Your task to perform on an android device: turn off javascript in the chrome app Image 0: 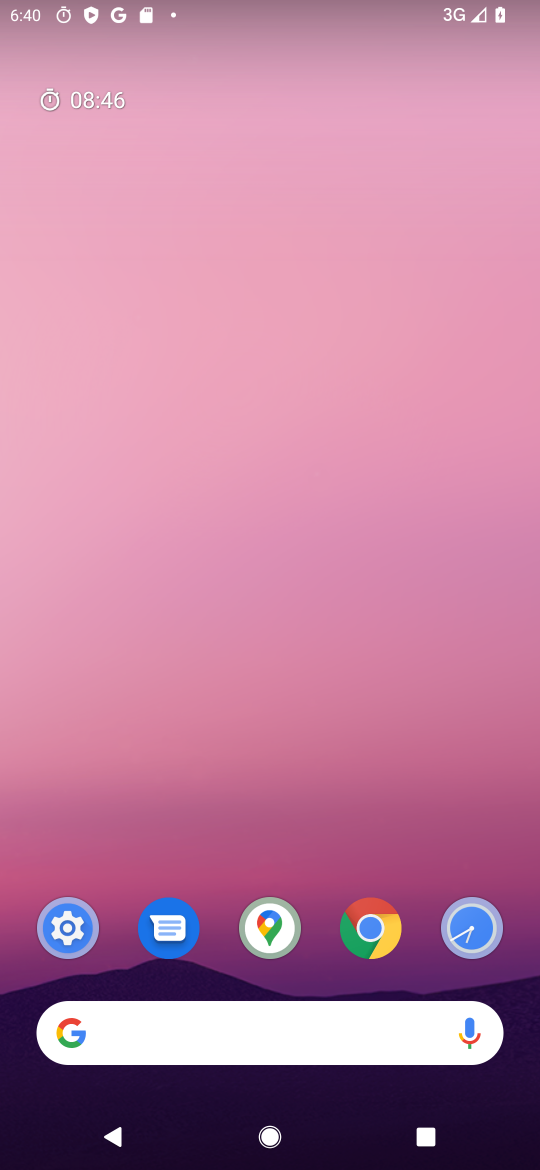
Step 0: press home button
Your task to perform on an android device: turn off javascript in the chrome app Image 1: 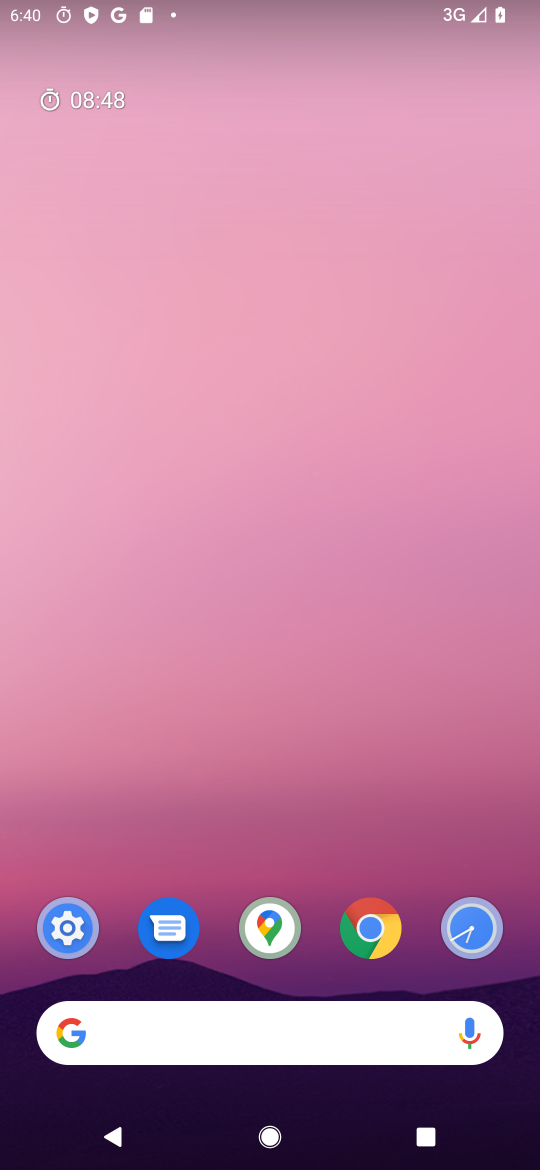
Step 1: drag from (214, 850) to (275, 210)
Your task to perform on an android device: turn off javascript in the chrome app Image 2: 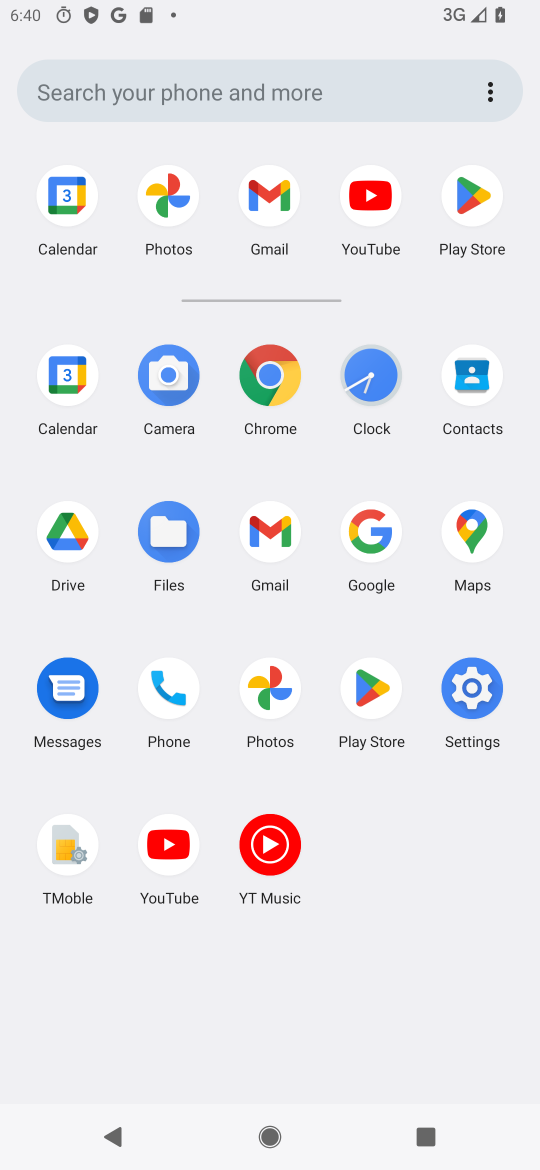
Step 2: click (272, 381)
Your task to perform on an android device: turn off javascript in the chrome app Image 3: 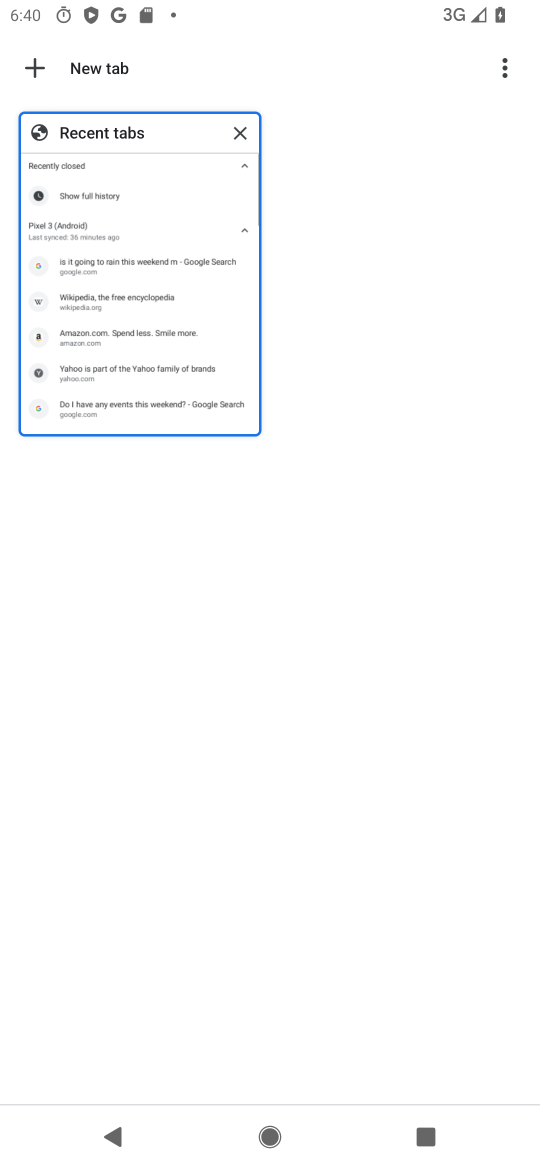
Step 3: press back button
Your task to perform on an android device: turn off javascript in the chrome app Image 4: 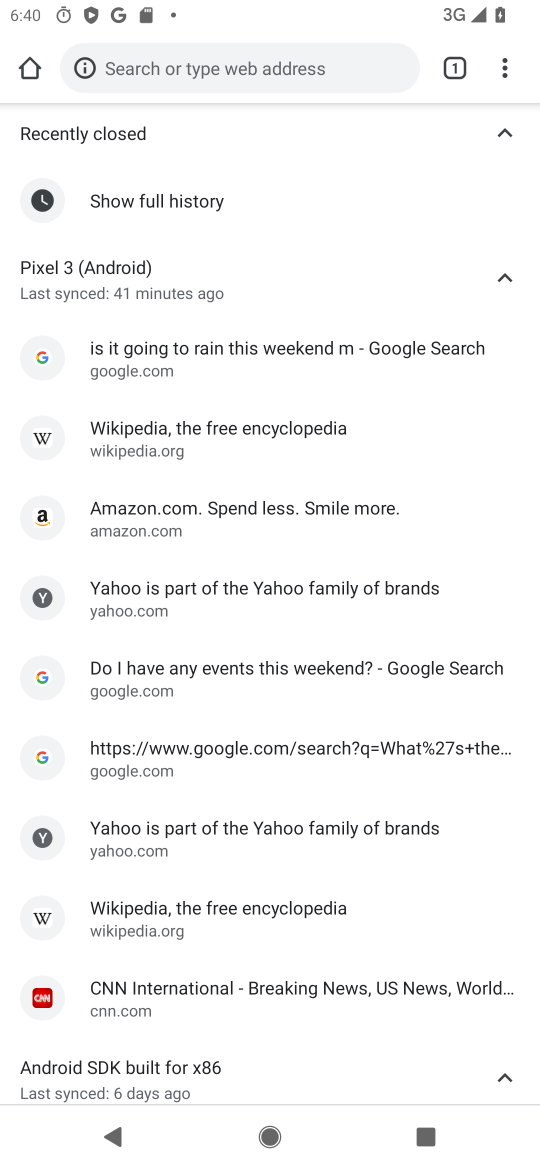
Step 4: click (507, 71)
Your task to perform on an android device: turn off javascript in the chrome app Image 5: 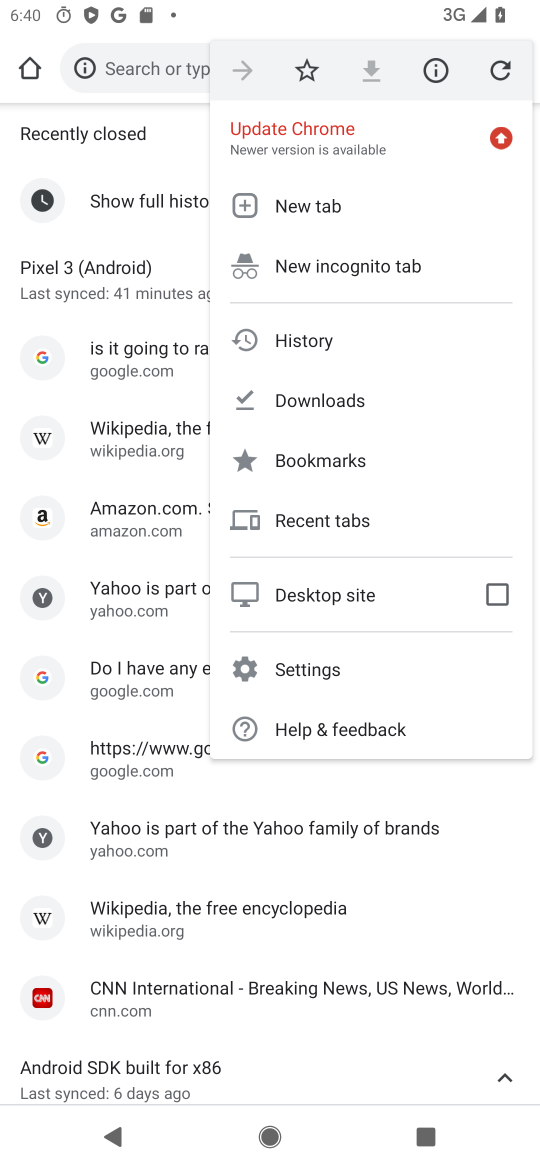
Step 5: click (364, 671)
Your task to perform on an android device: turn off javascript in the chrome app Image 6: 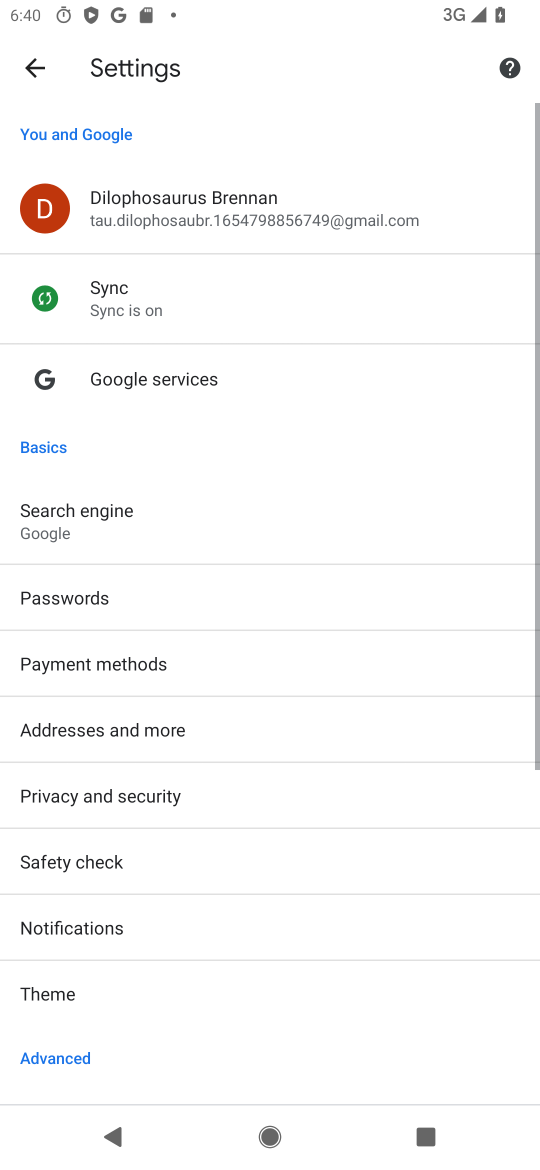
Step 6: drag from (365, 795) to (393, 615)
Your task to perform on an android device: turn off javascript in the chrome app Image 7: 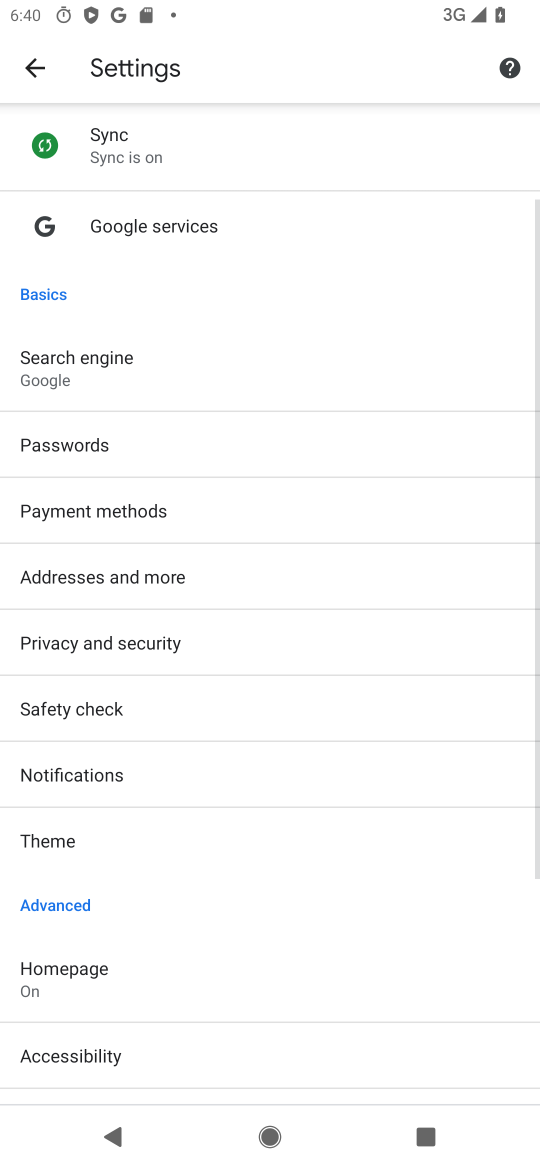
Step 7: drag from (367, 856) to (369, 694)
Your task to perform on an android device: turn off javascript in the chrome app Image 8: 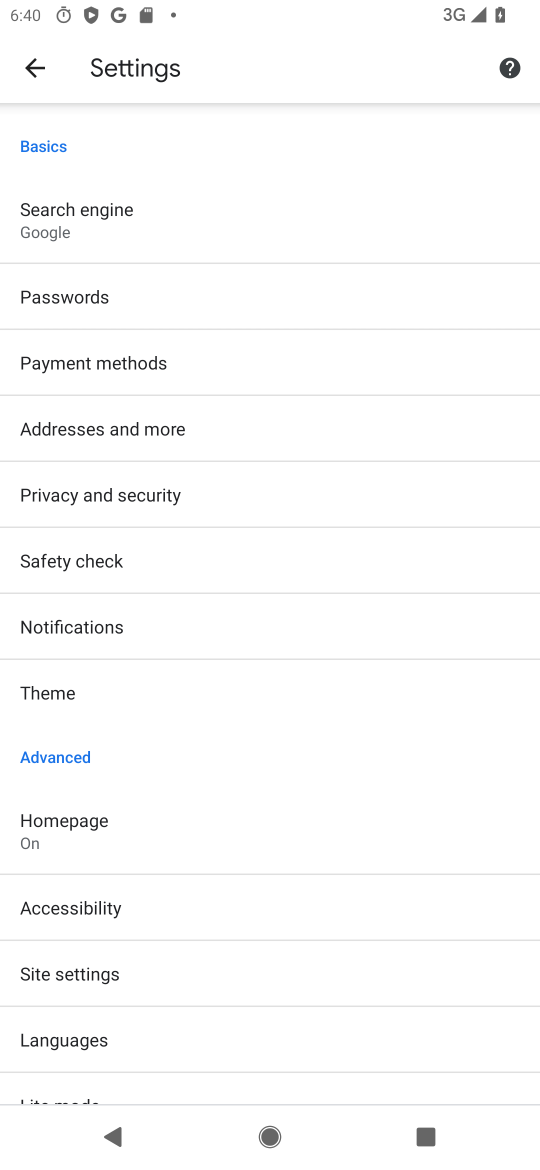
Step 8: drag from (376, 919) to (406, 733)
Your task to perform on an android device: turn off javascript in the chrome app Image 9: 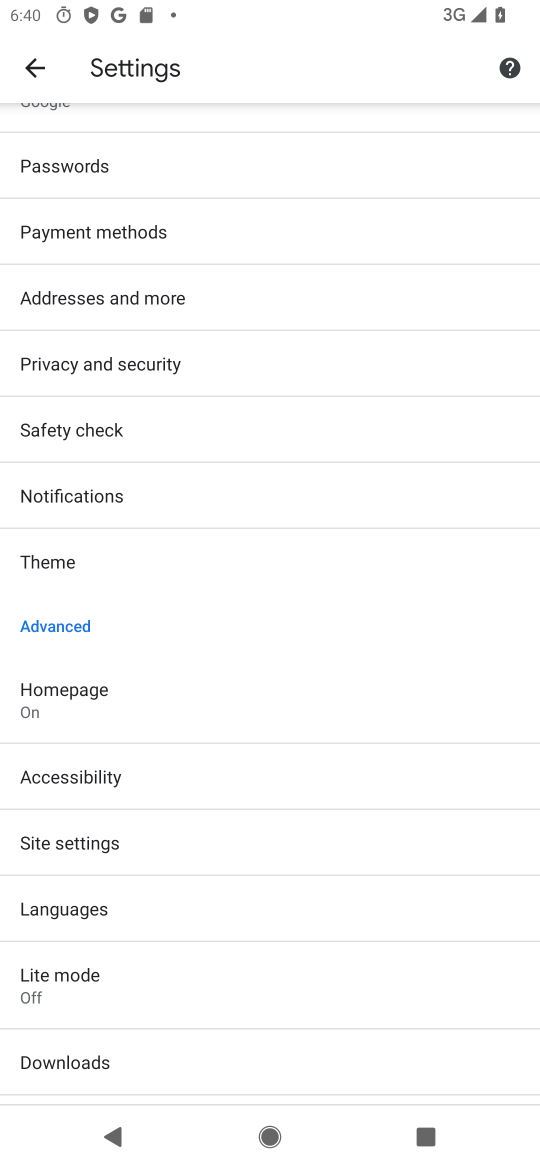
Step 9: drag from (404, 938) to (439, 702)
Your task to perform on an android device: turn off javascript in the chrome app Image 10: 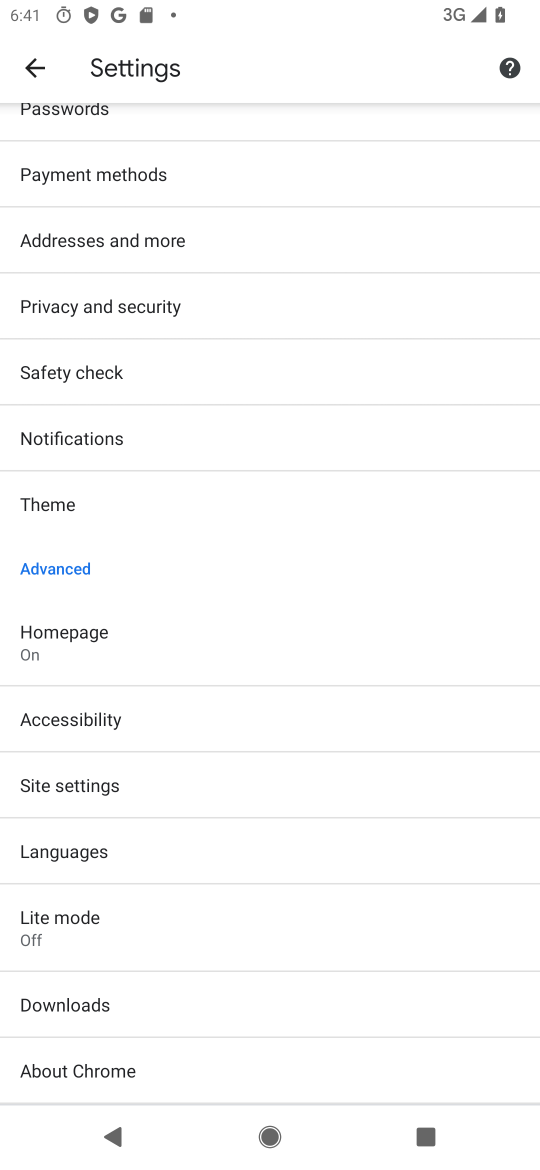
Step 10: drag from (386, 535) to (380, 728)
Your task to perform on an android device: turn off javascript in the chrome app Image 11: 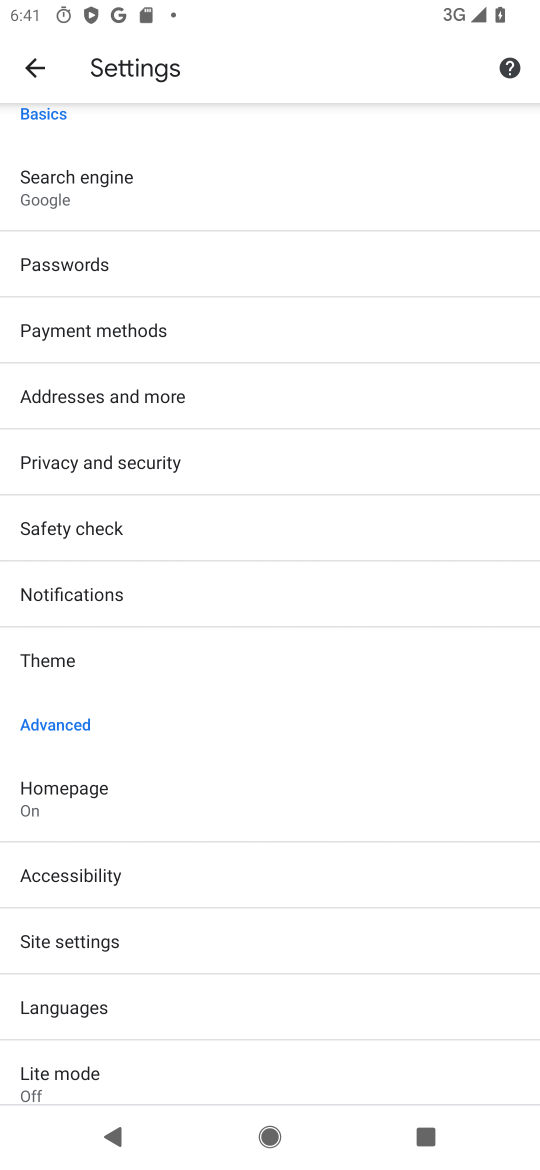
Step 11: drag from (401, 396) to (404, 671)
Your task to perform on an android device: turn off javascript in the chrome app Image 12: 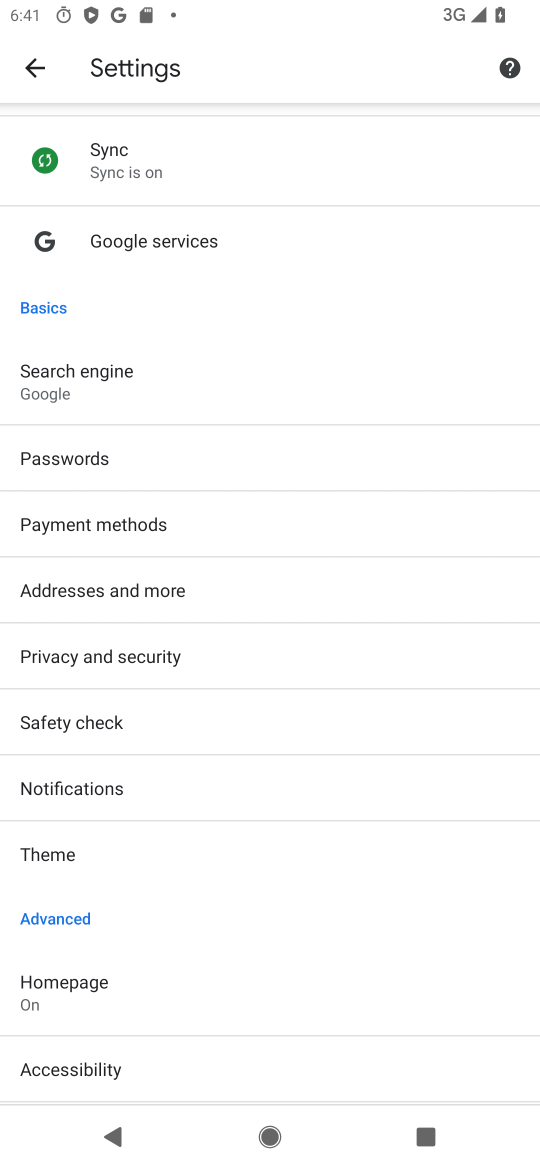
Step 12: drag from (368, 431) to (386, 738)
Your task to perform on an android device: turn off javascript in the chrome app Image 13: 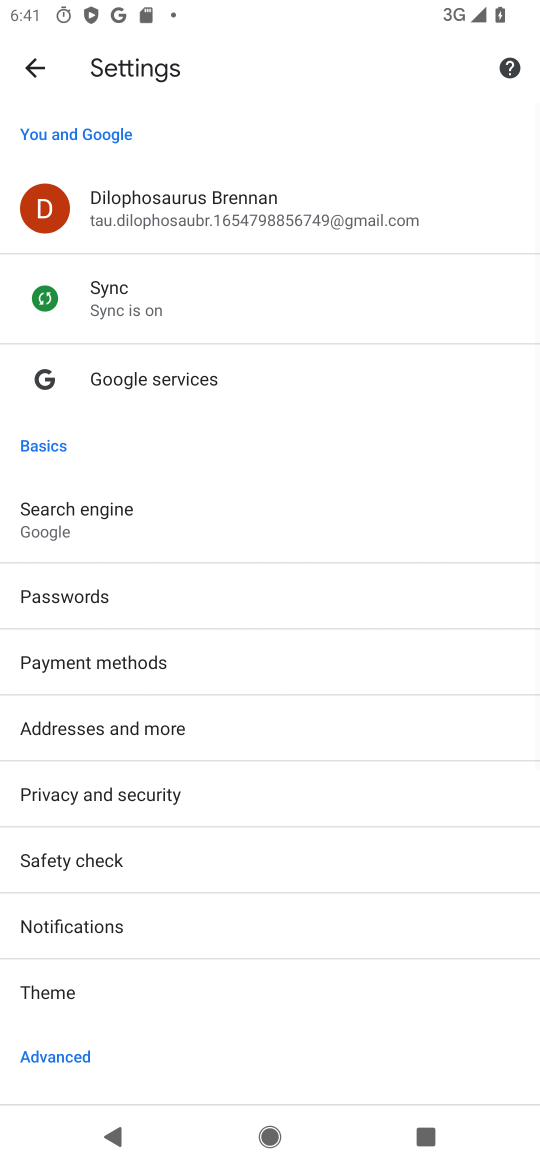
Step 13: drag from (352, 844) to (363, 641)
Your task to perform on an android device: turn off javascript in the chrome app Image 14: 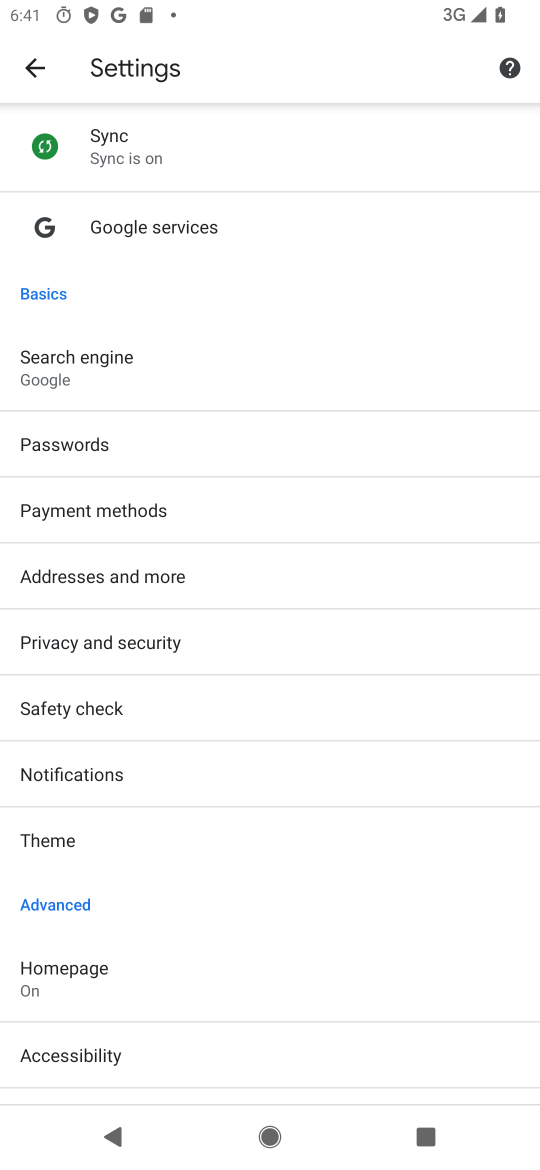
Step 14: drag from (317, 875) to (326, 650)
Your task to perform on an android device: turn off javascript in the chrome app Image 15: 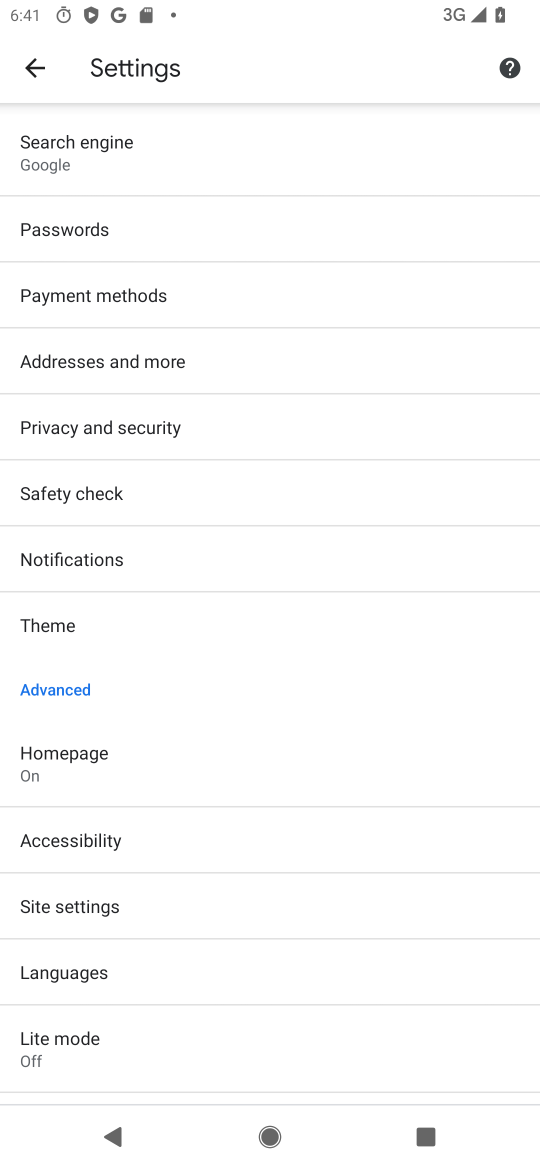
Step 15: click (309, 903)
Your task to perform on an android device: turn off javascript in the chrome app Image 16: 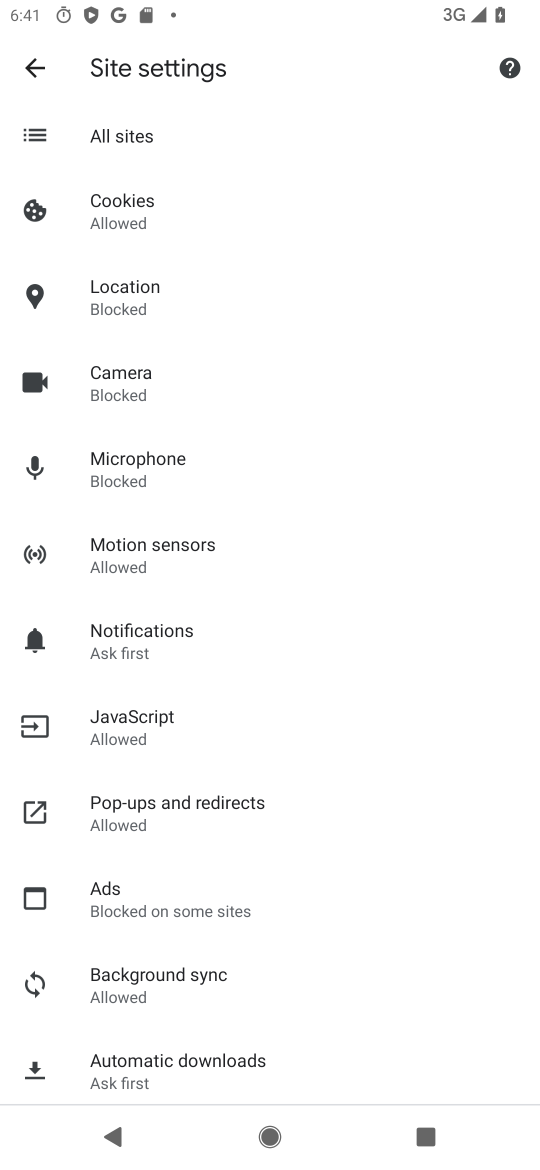
Step 16: drag from (356, 910) to (360, 713)
Your task to perform on an android device: turn off javascript in the chrome app Image 17: 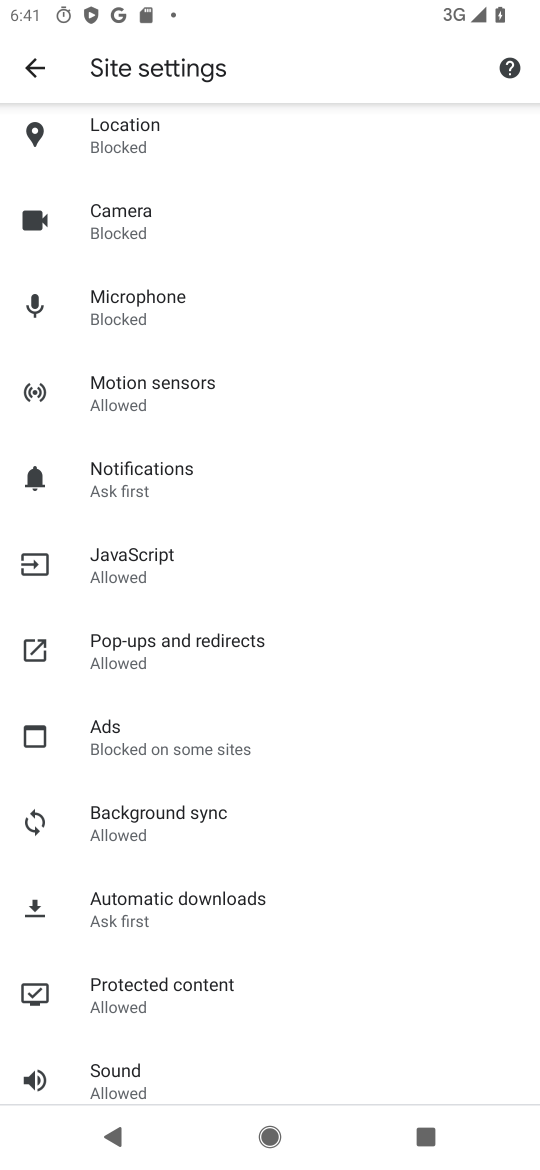
Step 17: drag from (360, 925) to (360, 721)
Your task to perform on an android device: turn off javascript in the chrome app Image 18: 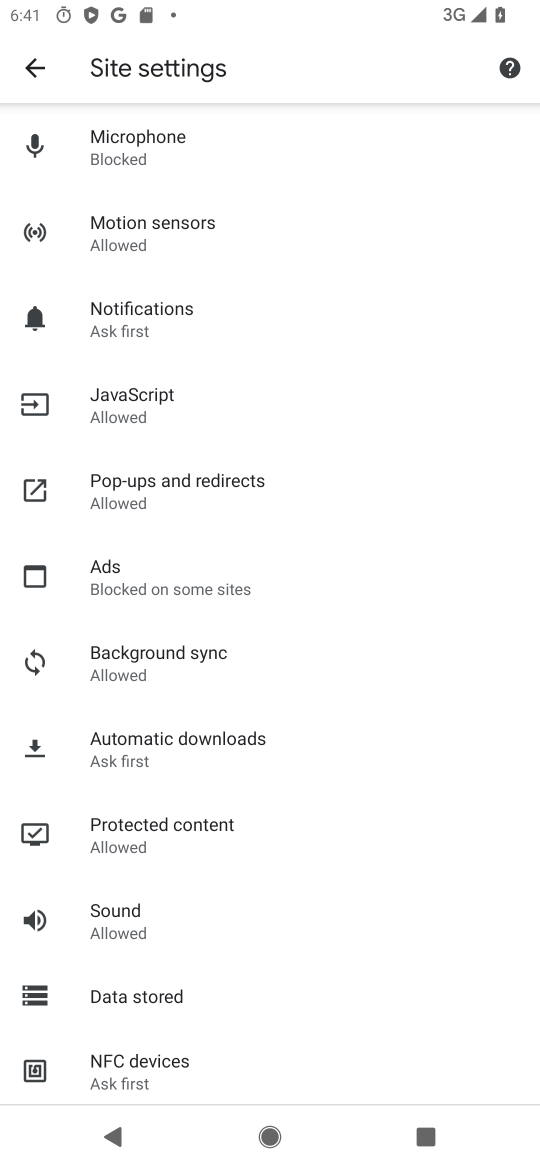
Step 18: click (194, 395)
Your task to perform on an android device: turn off javascript in the chrome app Image 19: 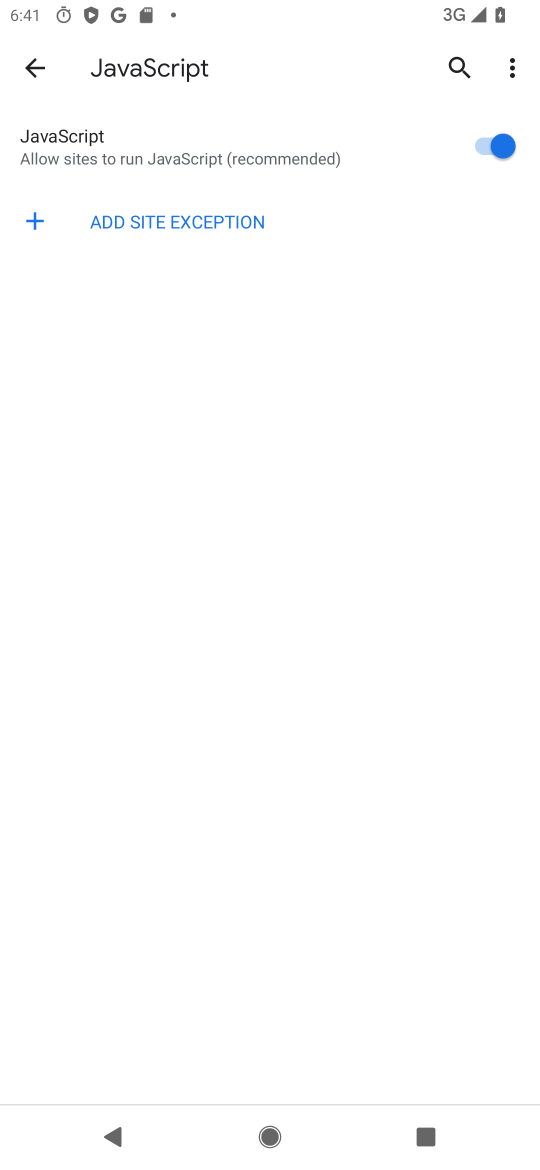
Step 19: click (505, 148)
Your task to perform on an android device: turn off javascript in the chrome app Image 20: 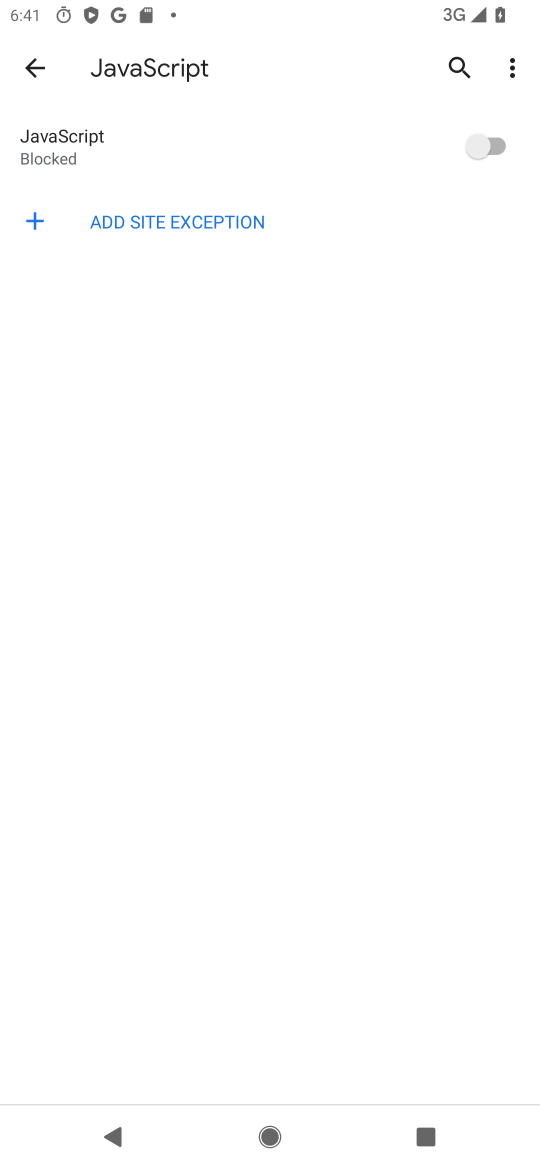
Step 20: task complete